Your task to perform on an android device: Do I have any events today? Image 0: 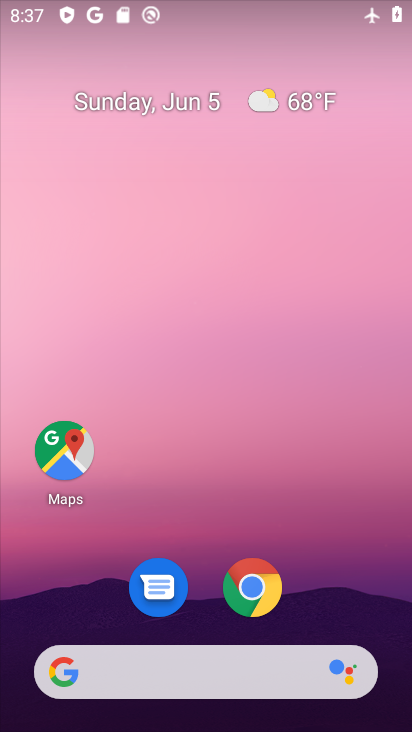
Step 0: drag from (337, 589) to (32, 349)
Your task to perform on an android device: Do I have any events today? Image 1: 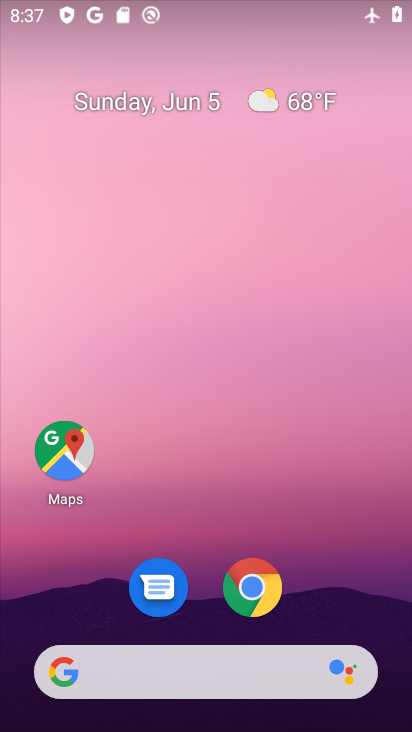
Step 1: drag from (359, 602) to (228, 113)
Your task to perform on an android device: Do I have any events today? Image 2: 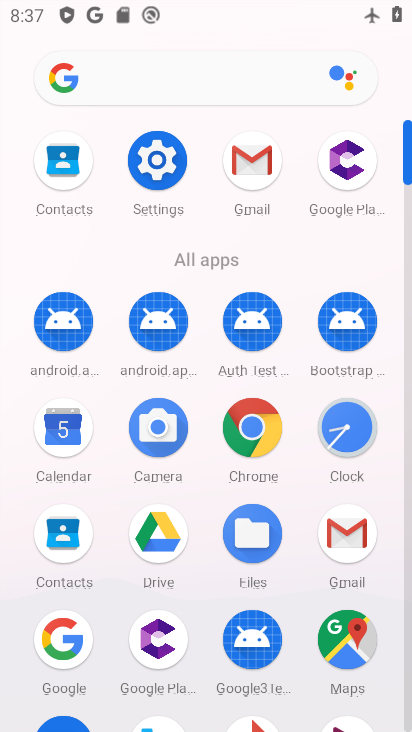
Step 2: click (57, 440)
Your task to perform on an android device: Do I have any events today? Image 3: 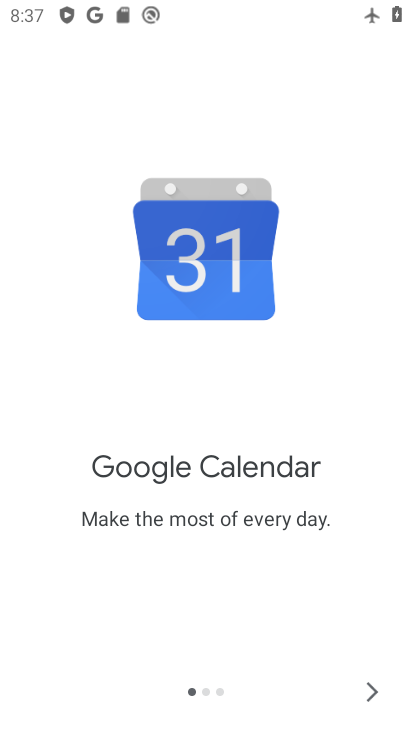
Step 3: click (377, 688)
Your task to perform on an android device: Do I have any events today? Image 4: 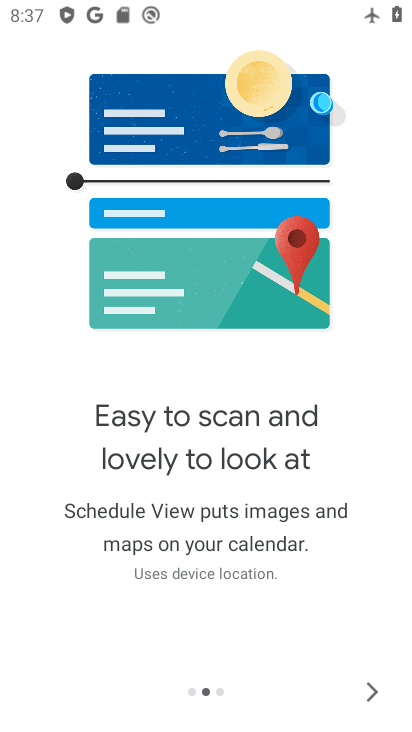
Step 4: click (377, 688)
Your task to perform on an android device: Do I have any events today? Image 5: 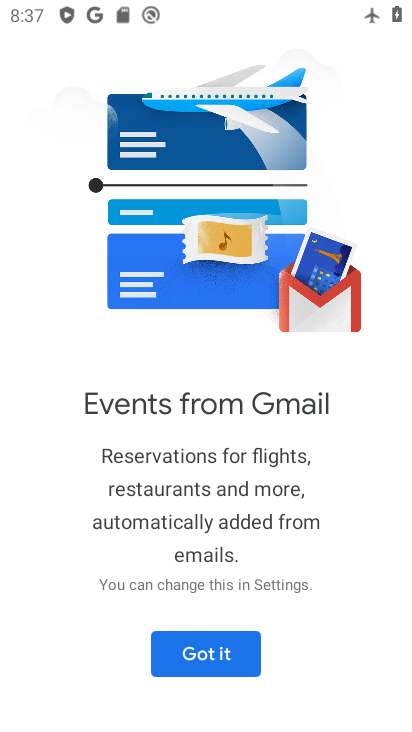
Step 5: click (226, 643)
Your task to perform on an android device: Do I have any events today? Image 6: 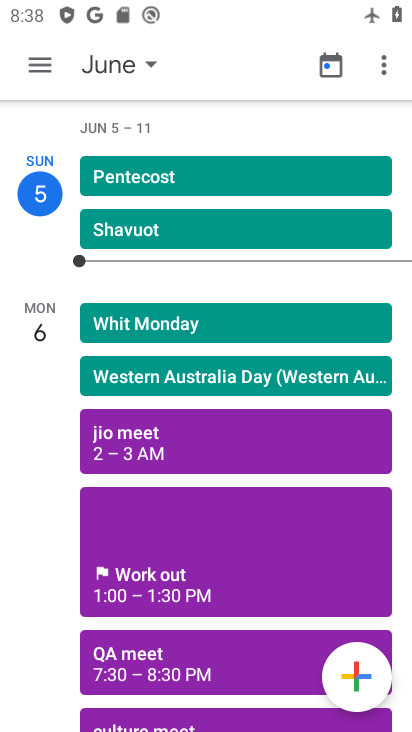
Step 6: task complete